Your task to perform on an android device: install app "WhatsApp Messenger" Image 0: 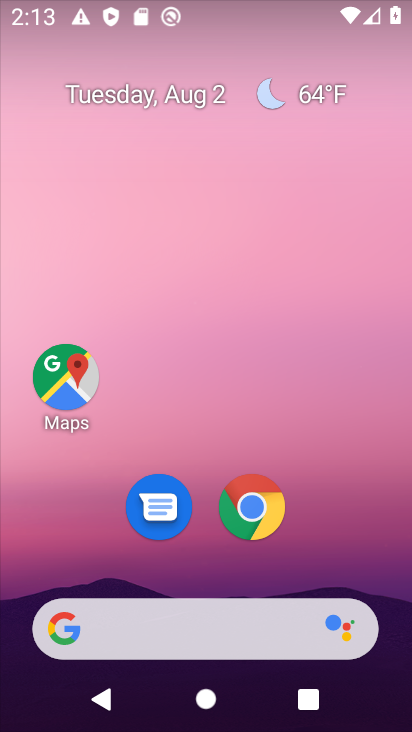
Step 0: drag from (211, 560) to (183, 4)
Your task to perform on an android device: install app "WhatsApp Messenger" Image 1: 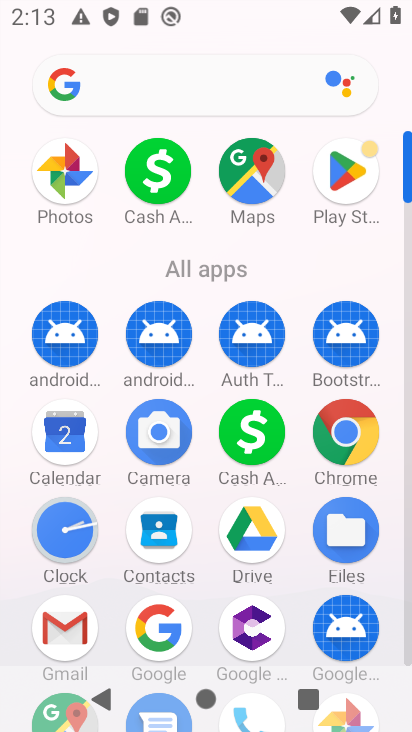
Step 1: click (347, 188)
Your task to perform on an android device: install app "WhatsApp Messenger" Image 2: 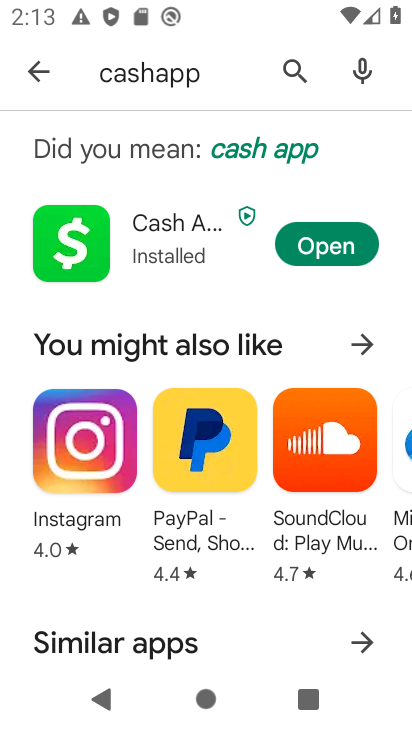
Step 2: click (147, 84)
Your task to perform on an android device: install app "WhatsApp Messenger" Image 3: 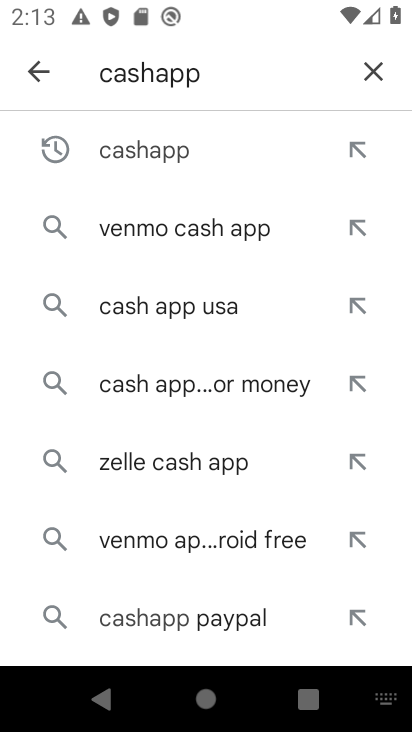
Step 3: click (380, 71)
Your task to perform on an android device: install app "WhatsApp Messenger" Image 4: 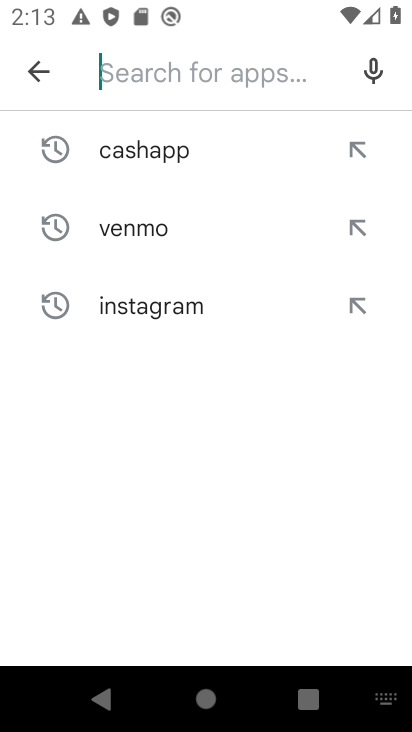
Step 4: type "whatsapp messenger"
Your task to perform on an android device: install app "WhatsApp Messenger" Image 5: 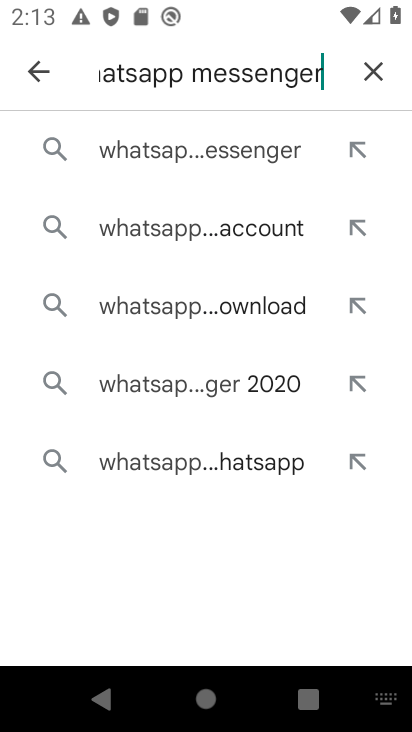
Step 5: click (179, 152)
Your task to perform on an android device: install app "WhatsApp Messenger" Image 6: 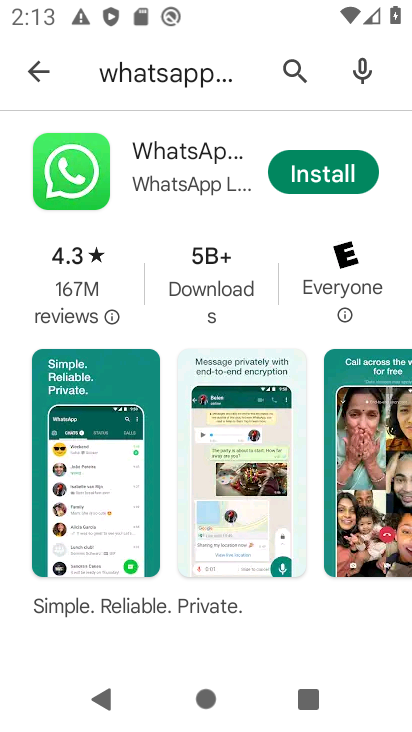
Step 6: click (350, 175)
Your task to perform on an android device: install app "WhatsApp Messenger" Image 7: 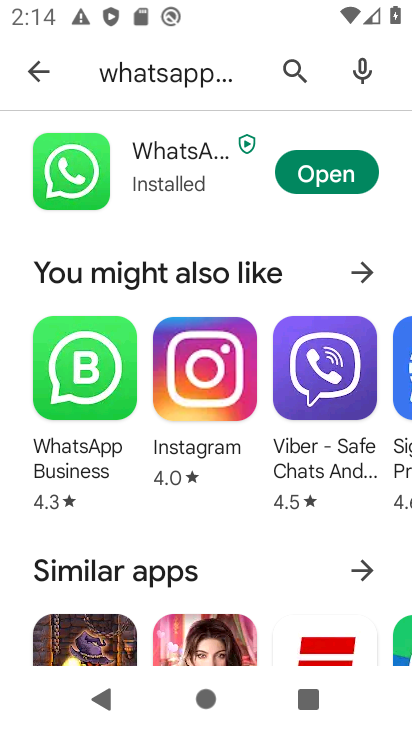
Step 7: task complete